Your task to perform on an android device: What is the news today? Image 0: 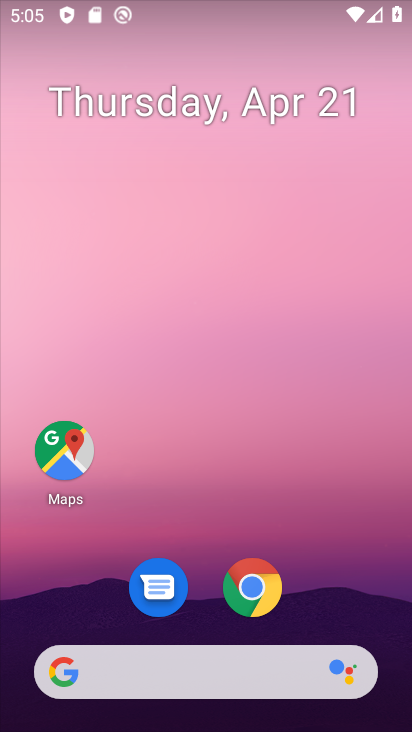
Step 0: drag from (203, 621) to (242, 133)
Your task to perform on an android device: What is the news today? Image 1: 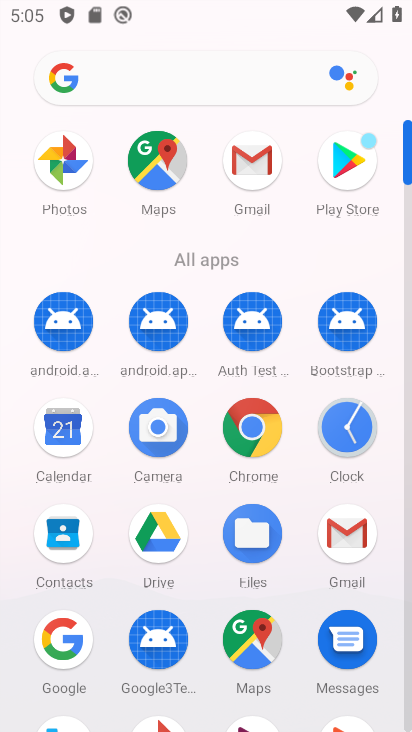
Step 1: task complete